Your task to perform on an android device: Go to Android settings Image 0: 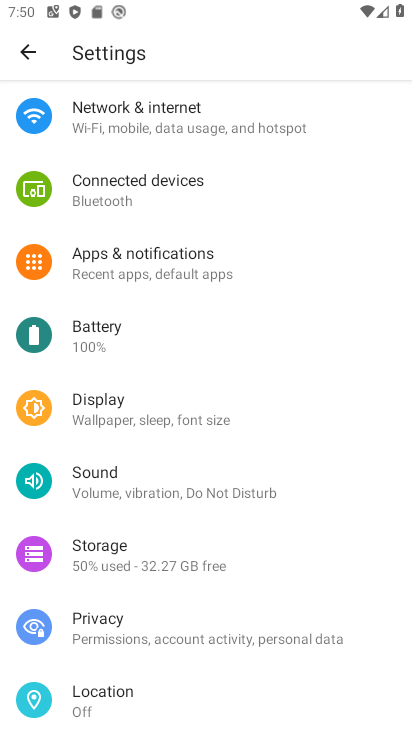
Step 0: drag from (199, 585) to (179, 193)
Your task to perform on an android device: Go to Android settings Image 1: 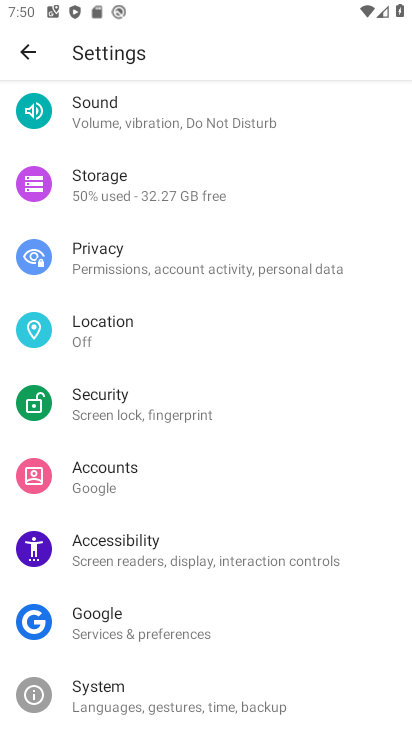
Step 1: drag from (194, 669) to (183, 285)
Your task to perform on an android device: Go to Android settings Image 2: 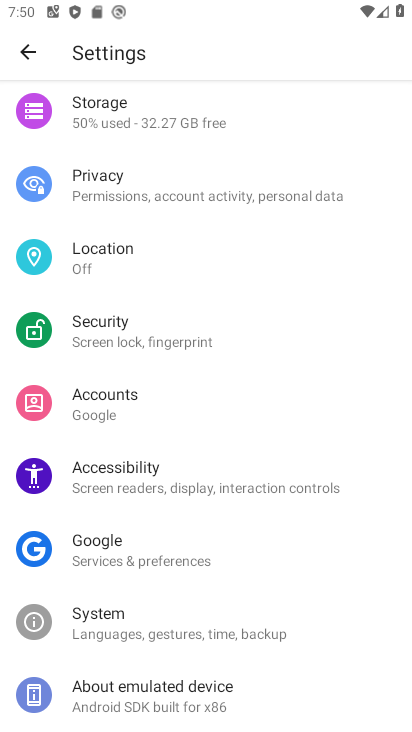
Step 2: click (126, 680)
Your task to perform on an android device: Go to Android settings Image 3: 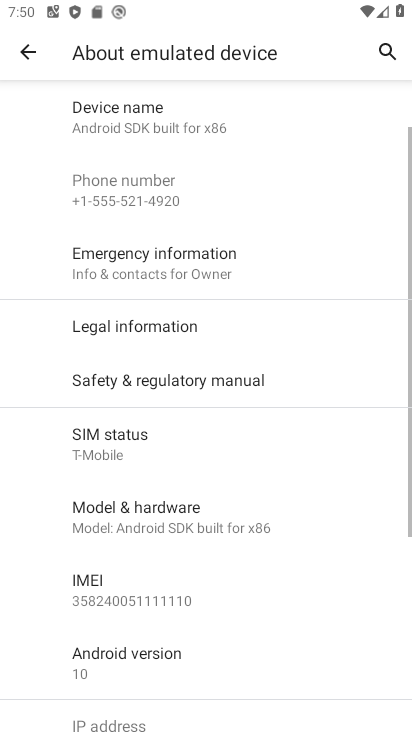
Step 3: click (155, 646)
Your task to perform on an android device: Go to Android settings Image 4: 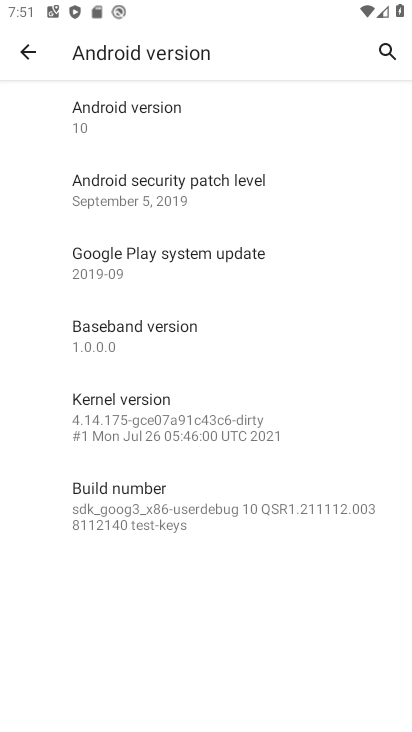
Step 4: task complete